Your task to perform on an android device: What's on my calendar today? Image 0: 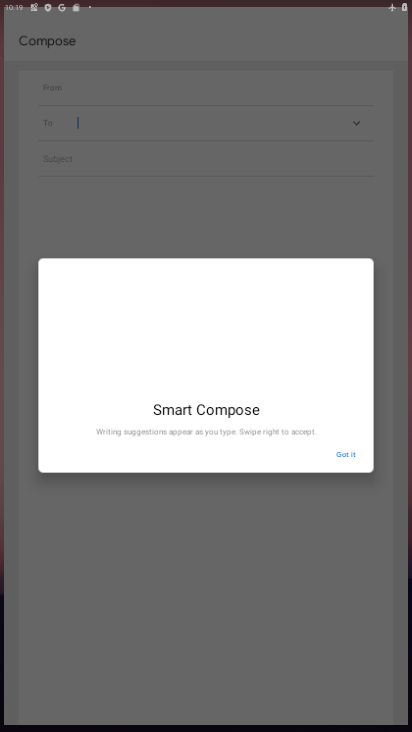
Step 0: drag from (309, 654) to (205, 119)
Your task to perform on an android device: What's on my calendar today? Image 1: 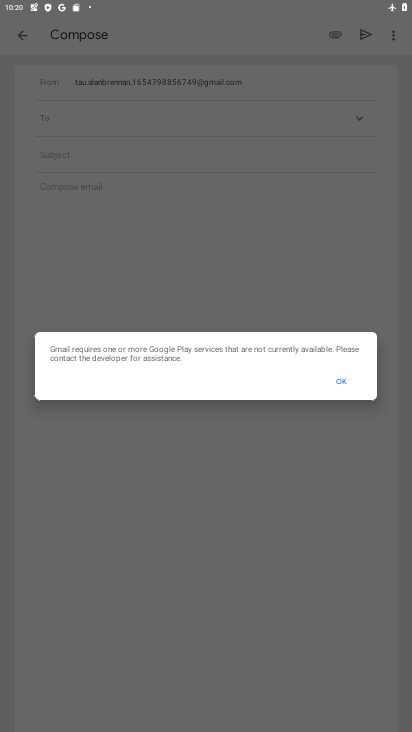
Step 1: press home button
Your task to perform on an android device: What's on my calendar today? Image 2: 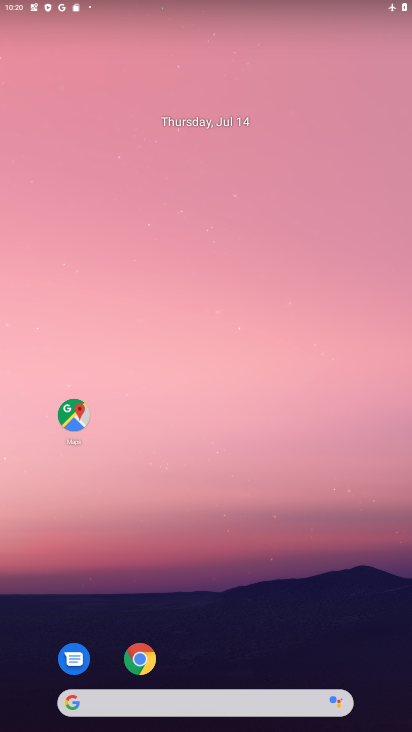
Step 2: drag from (285, 615) to (205, 74)
Your task to perform on an android device: What's on my calendar today? Image 3: 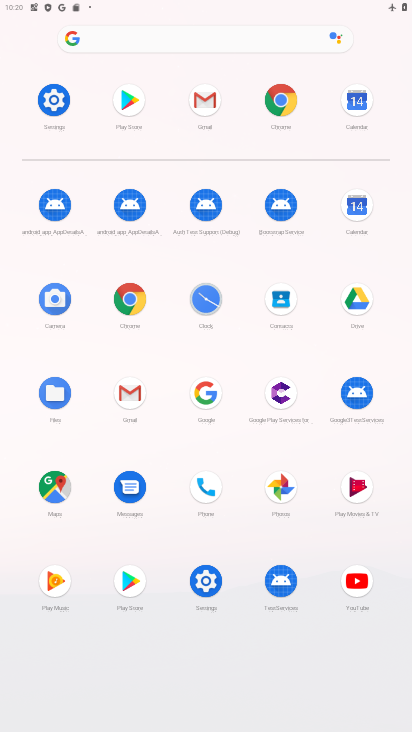
Step 3: click (361, 213)
Your task to perform on an android device: What's on my calendar today? Image 4: 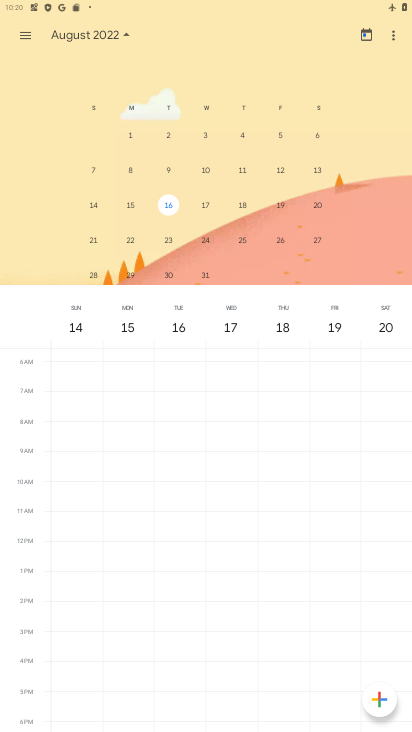
Step 4: drag from (87, 147) to (410, 186)
Your task to perform on an android device: What's on my calendar today? Image 5: 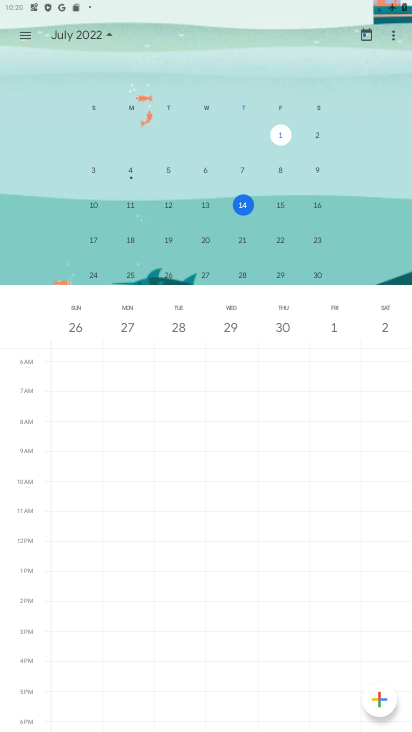
Step 5: click (247, 203)
Your task to perform on an android device: What's on my calendar today? Image 6: 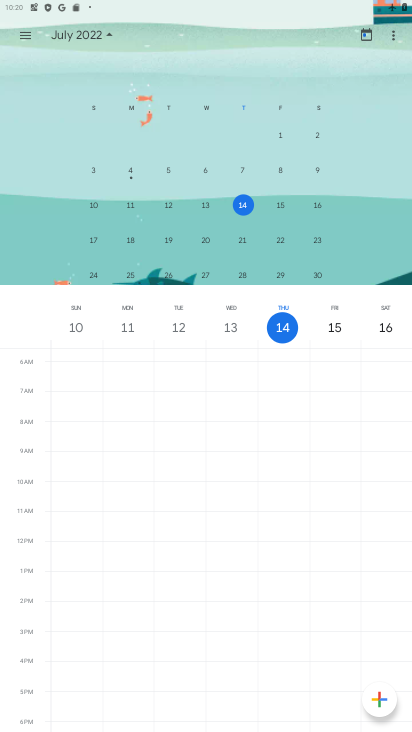
Step 6: task complete